Your task to perform on an android device: What's the weather going to be this weekend? Image 0: 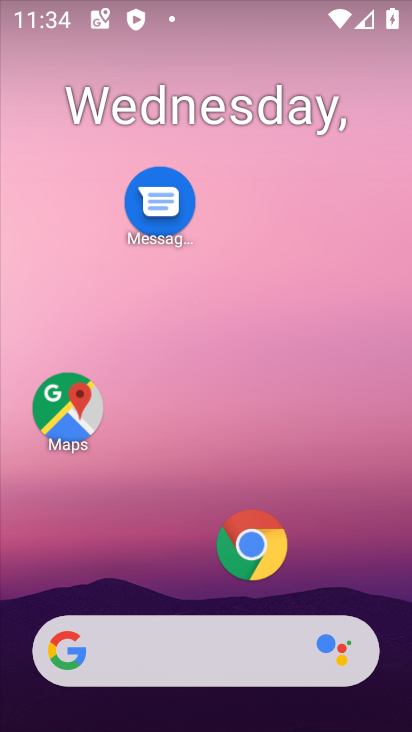
Step 0: drag from (193, 583) to (218, 244)
Your task to perform on an android device: What's the weather going to be this weekend? Image 1: 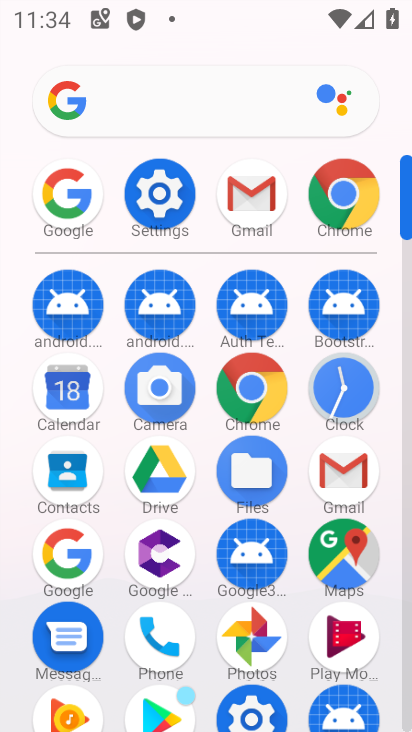
Step 1: click (70, 560)
Your task to perform on an android device: What's the weather going to be this weekend? Image 2: 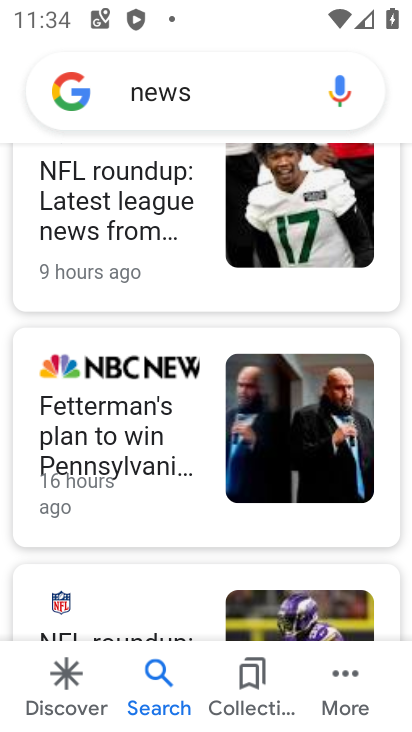
Step 2: drag from (206, 242) to (208, 507)
Your task to perform on an android device: What's the weather going to be this weekend? Image 3: 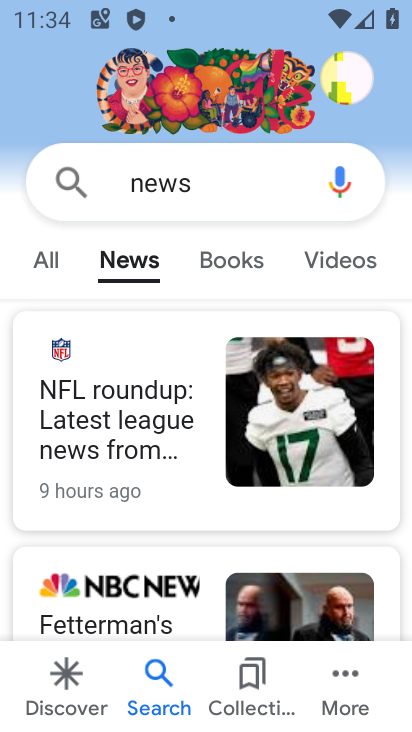
Step 3: click (208, 189)
Your task to perform on an android device: What's the weather going to be this weekend? Image 4: 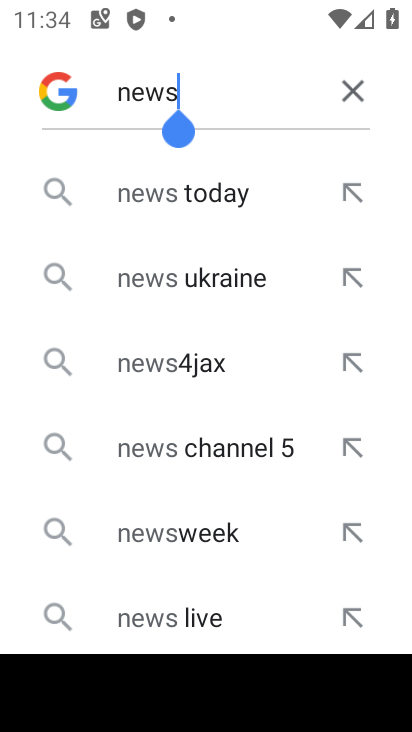
Step 4: click (341, 92)
Your task to perform on an android device: What's the weather going to be this weekend? Image 5: 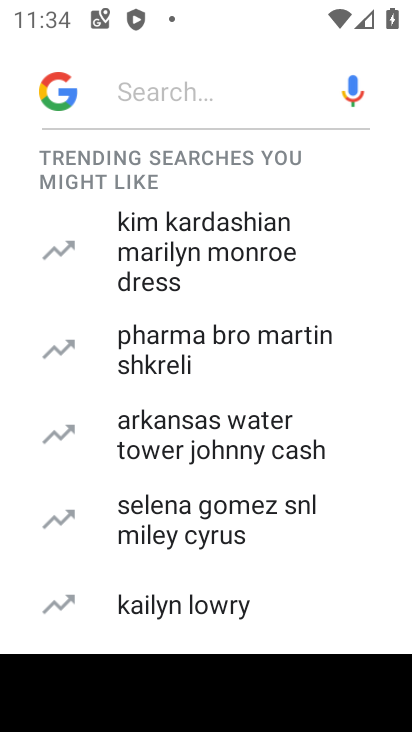
Step 5: type "weather"
Your task to perform on an android device: What's the weather going to be this weekend? Image 6: 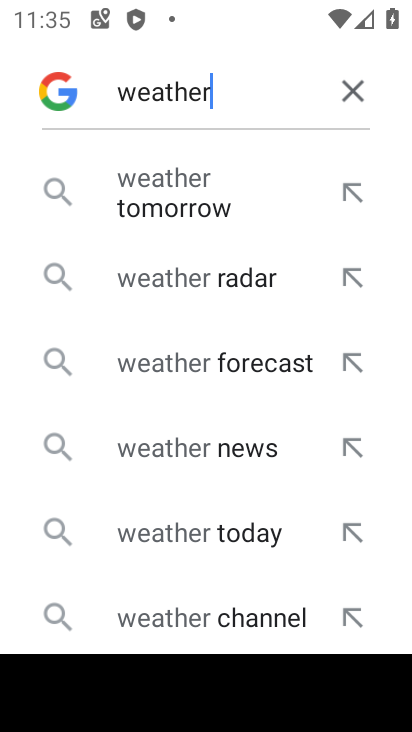
Step 6: click (209, 524)
Your task to perform on an android device: What's the weather going to be this weekend? Image 7: 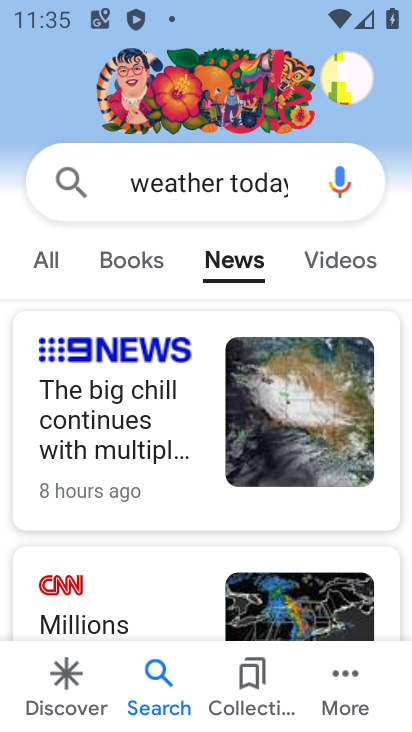
Step 7: click (56, 257)
Your task to perform on an android device: What's the weather going to be this weekend? Image 8: 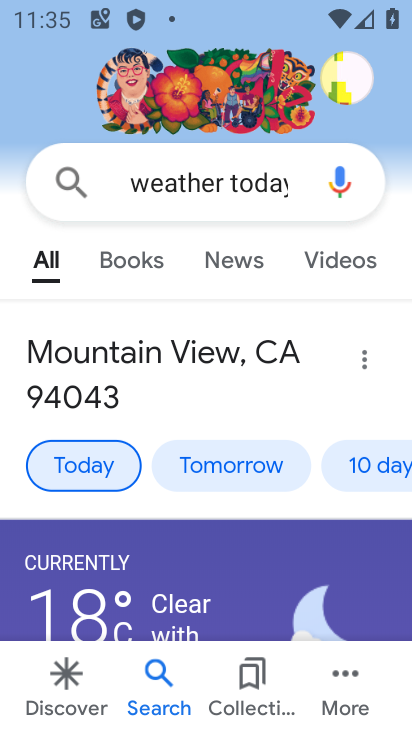
Step 8: click (364, 473)
Your task to perform on an android device: What's the weather going to be this weekend? Image 9: 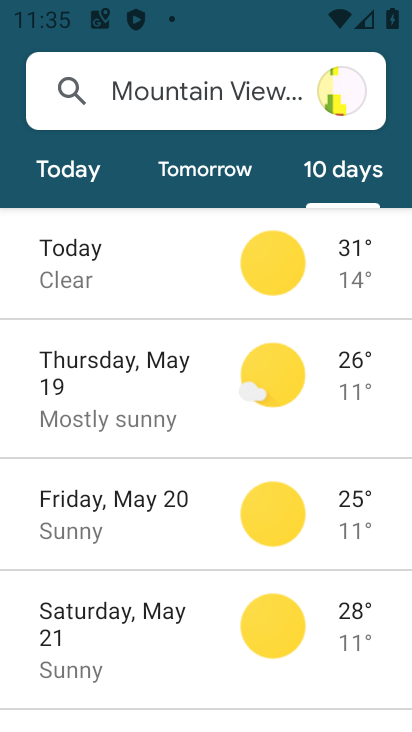
Step 9: task complete